Your task to perform on an android device: What is the recent news? Image 0: 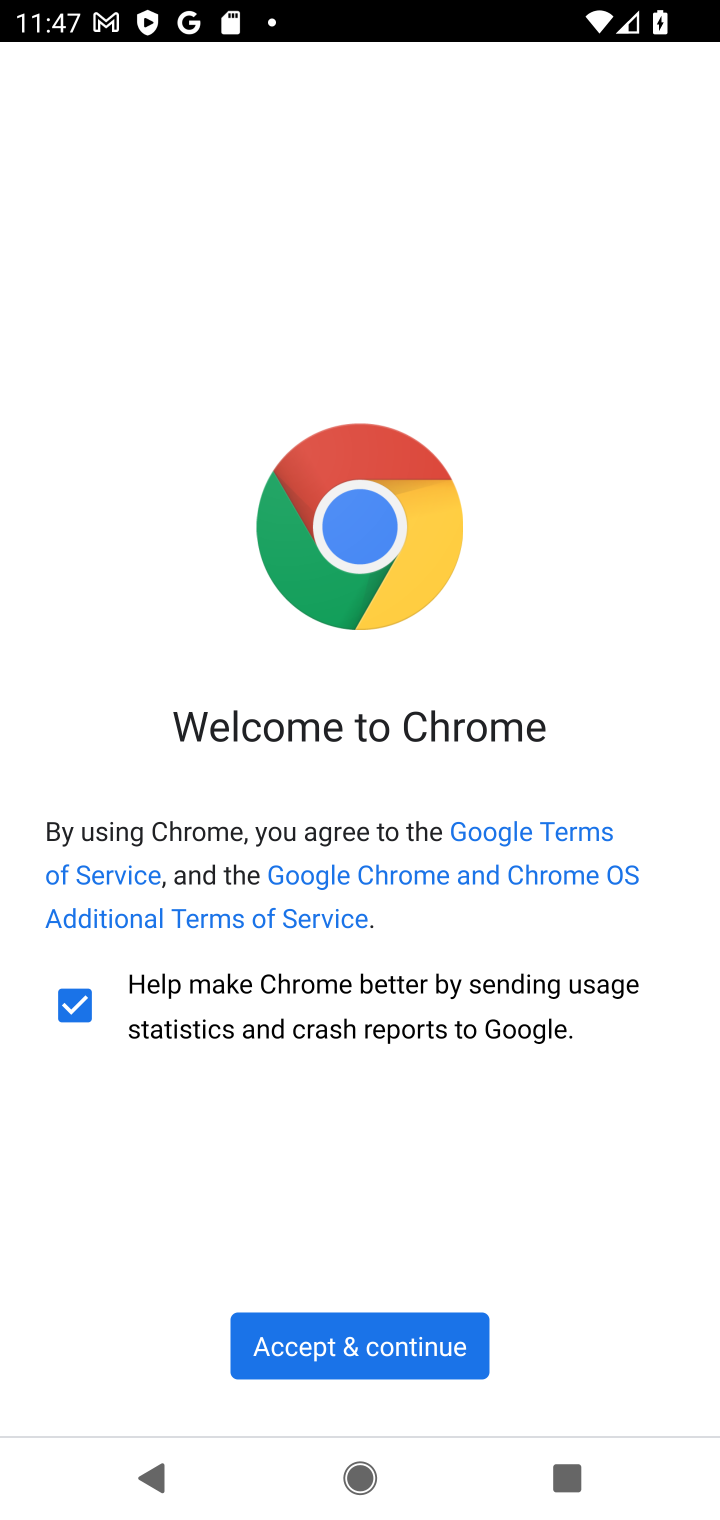
Step 0: press home button
Your task to perform on an android device: What is the recent news? Image 1: 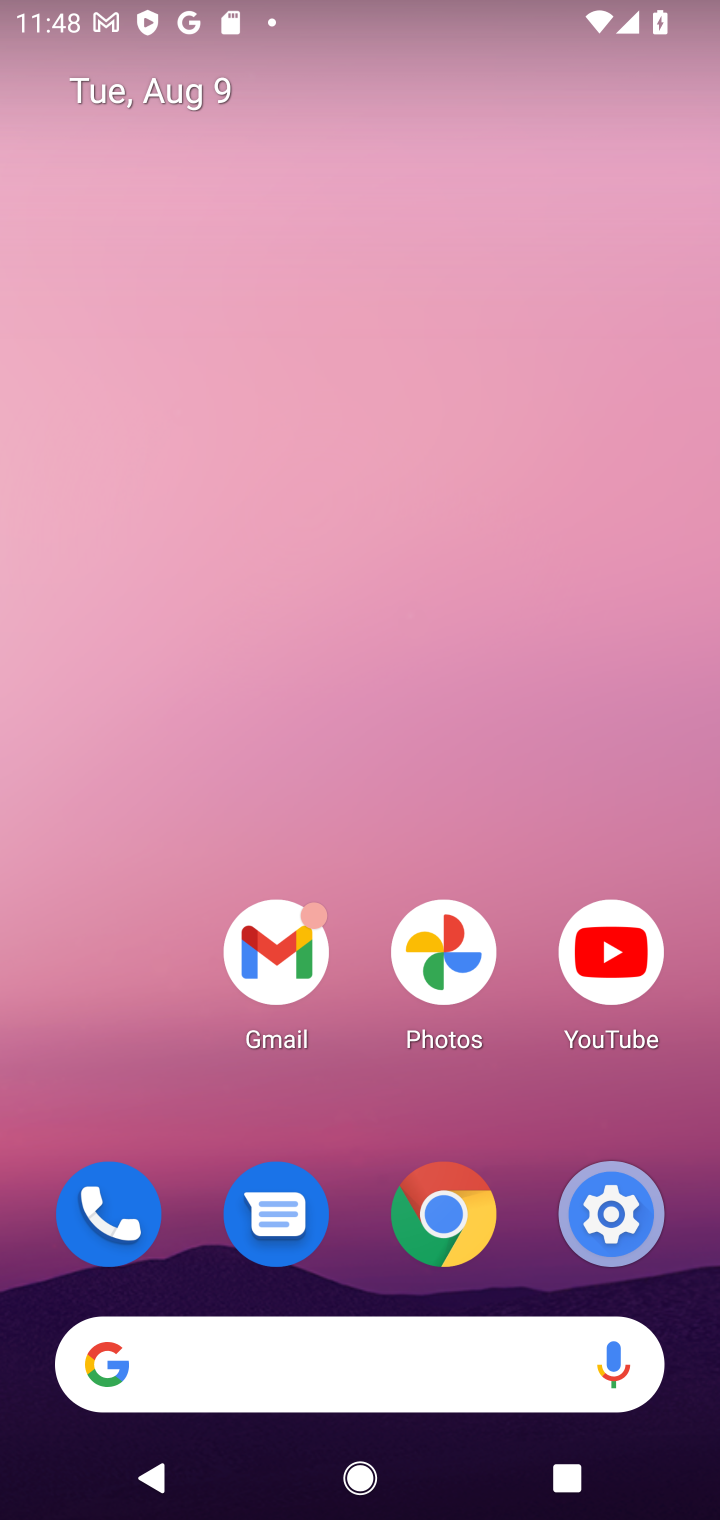
Step 1: click (293, 1375)
Your task to perform on an android device: What is the recent news? Image 2: 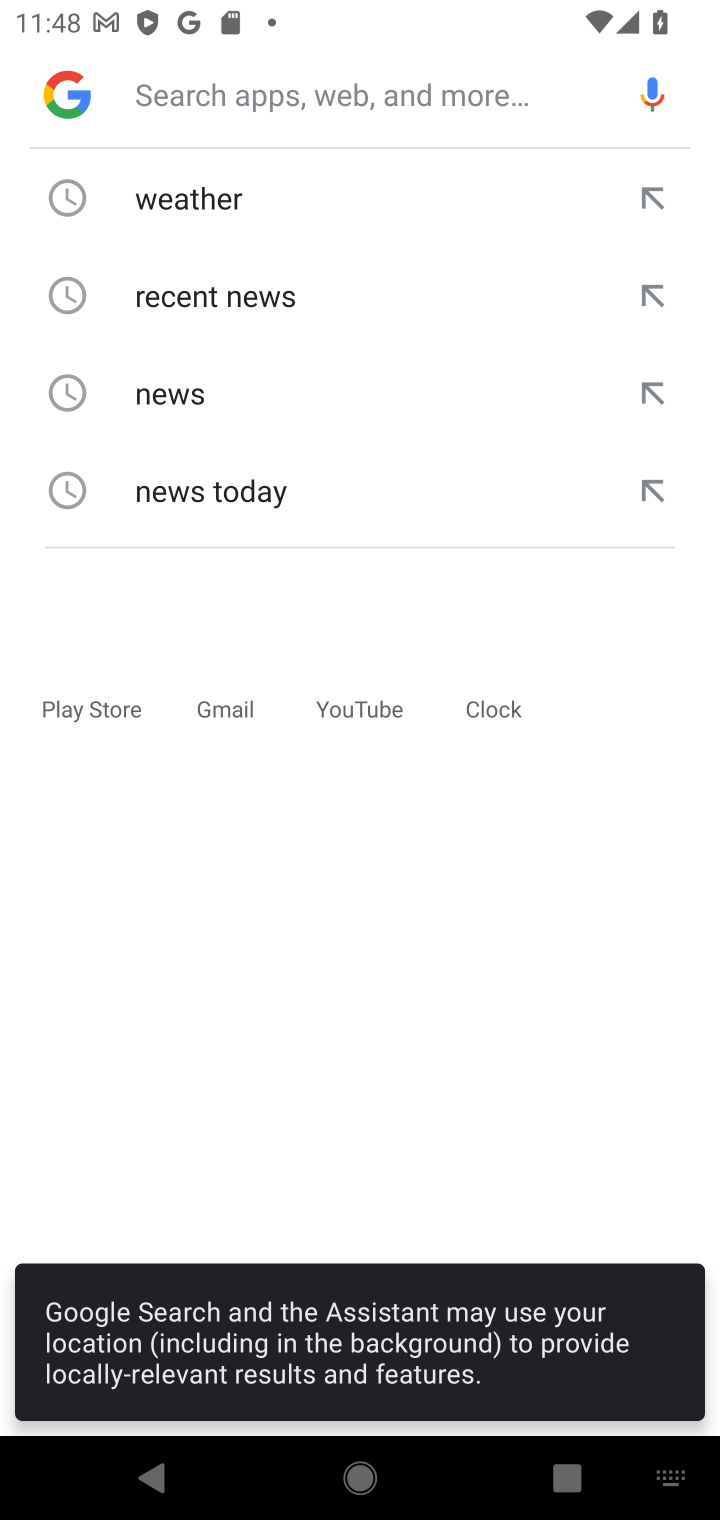
Step 2: click (245, 288)
Your task to perform on an android device: What is the recent news? Image 3: 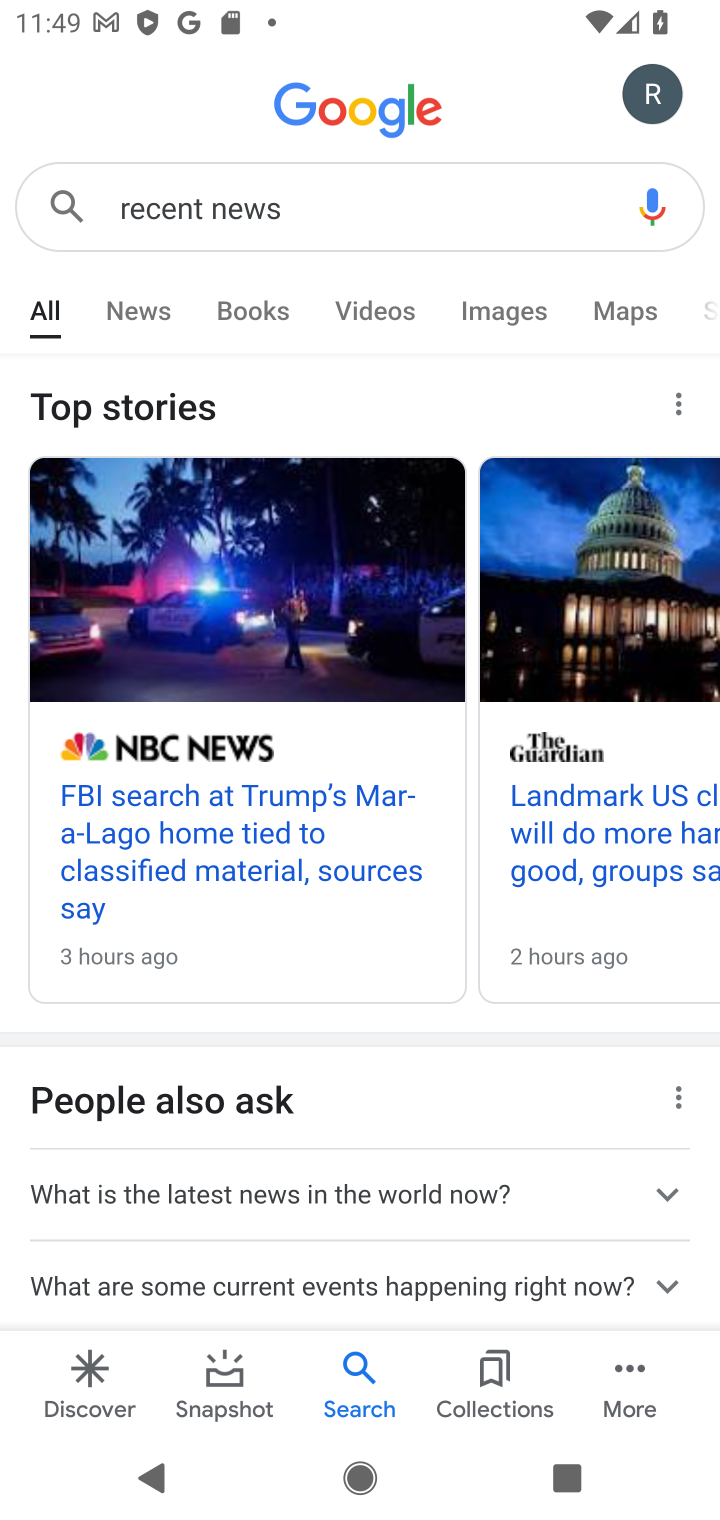
Step 3: task complete